Your task to perform on an android device: check battery use Image 0: 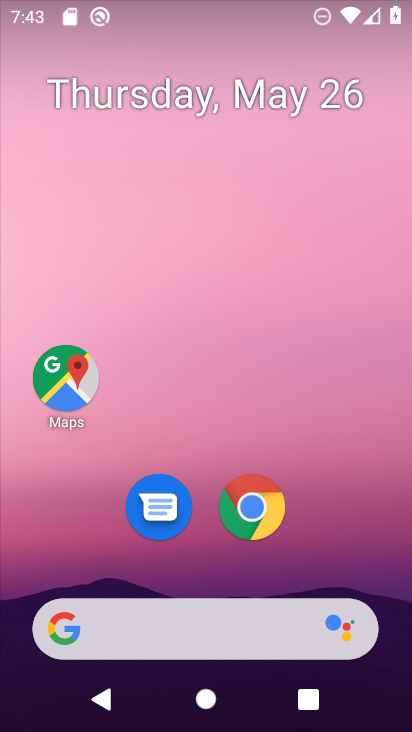
Step 0: drag from (206, 578) to (191, 147)
Your task to perform on an android device: check battery use Image 1: 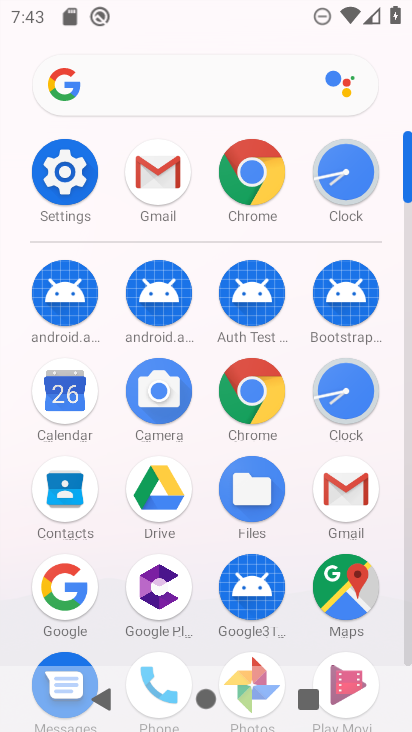
Step 1: click (50, 186)
Your task to perform on an android device: check battery use Image 2: 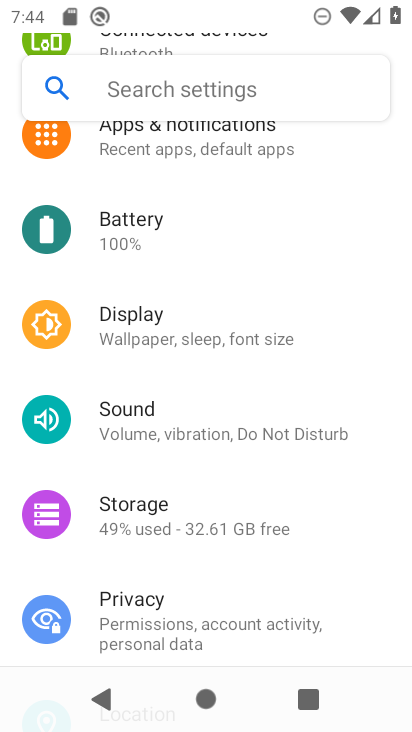
Step 2: click (135, 232)
Your task to perform on an android device: check battery use Image 3: 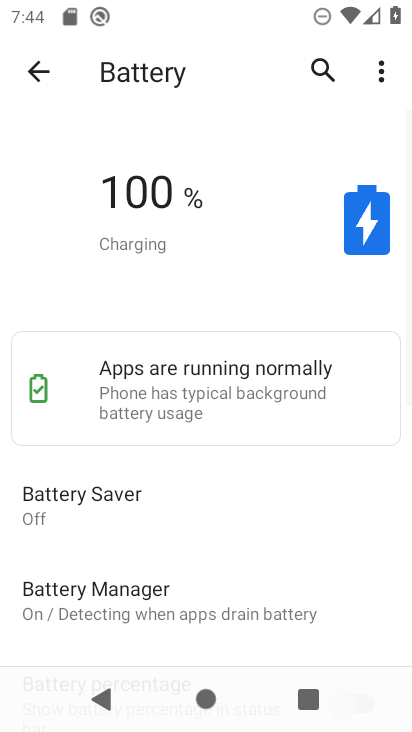
Step 3: task complete